Your task to perform on an android device: Search for seafood restaurants on Google Maps Image 0: 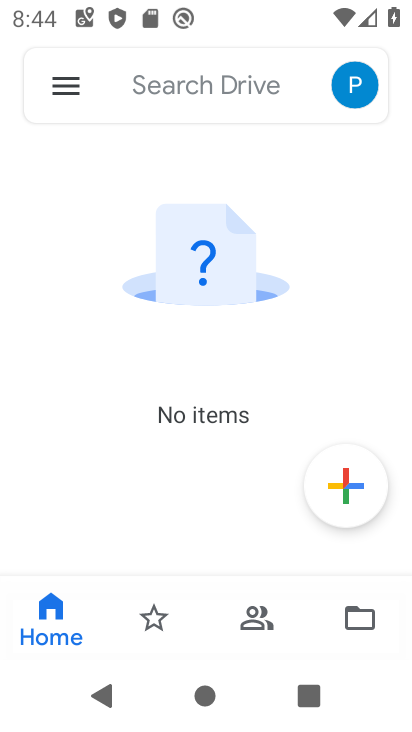
Step 0: press back button
Your task to perform on an android device: Search for seafood restaurants on Google Maps Image 1: 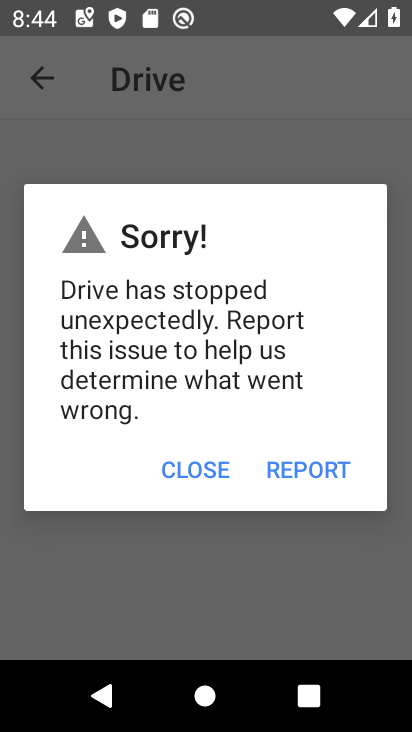
Step 1: press home button
Your task to perform on an android device: Search for seafood restaurants on Google Maps Image 2: 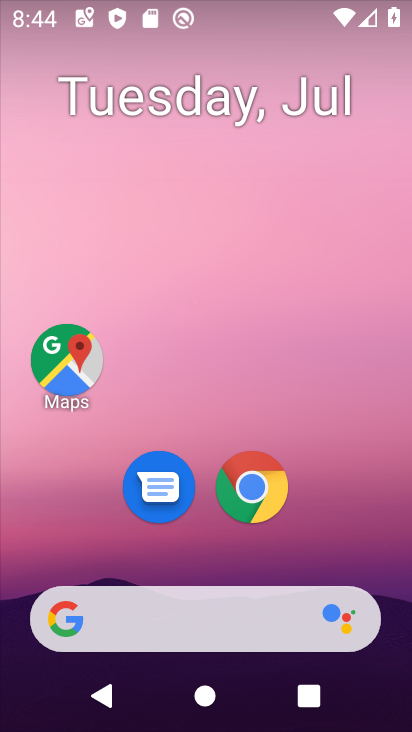
Step 2: click (66, 343)
Your task to perform on an android device: Search for seafood restaurants on Google Maps Image 3: 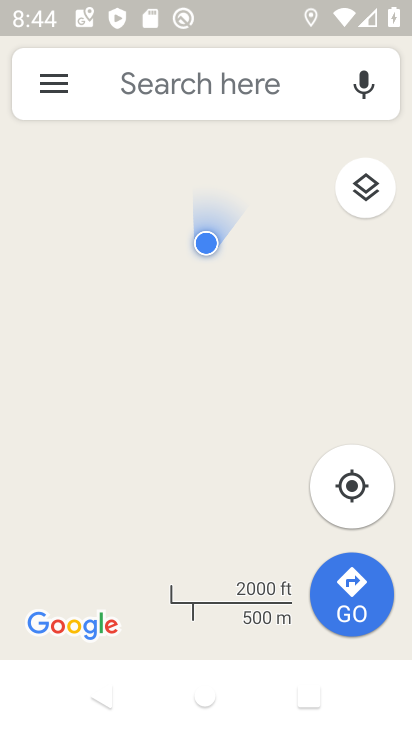
Step 3: click (192, 80)
Your task to perform on an android device: Search for seafood restaurants on Google Maps Image 4: 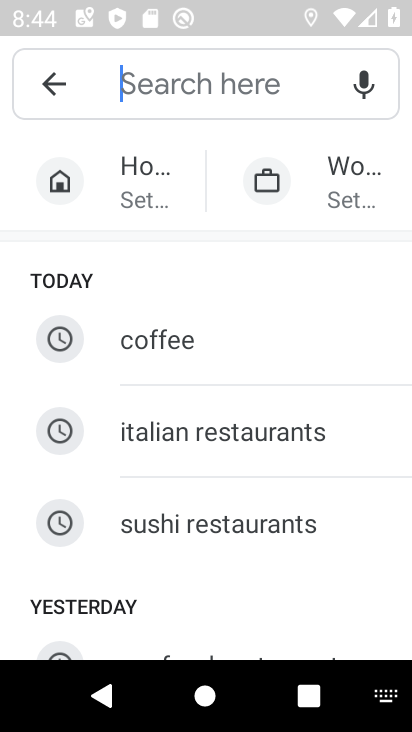
Step 4: type "seafood restaurants"
Your task to perform on an android device: Search for seafood restaurants on Google Maps Image 5: 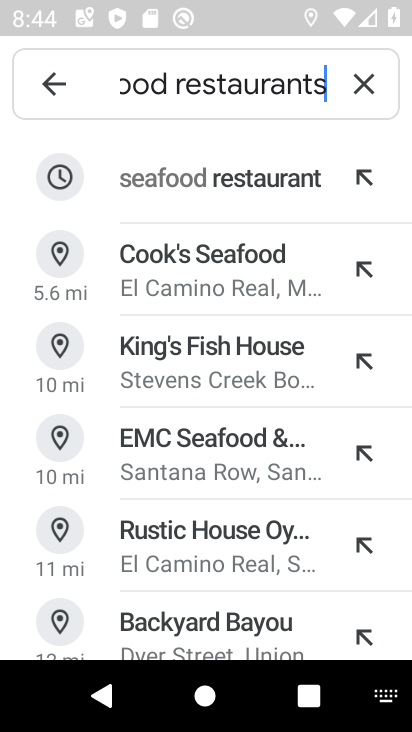
Step 5: click (201, 193)
Your task to perform on an android device: Search for seafood restaurants on Google Maps Image 6: 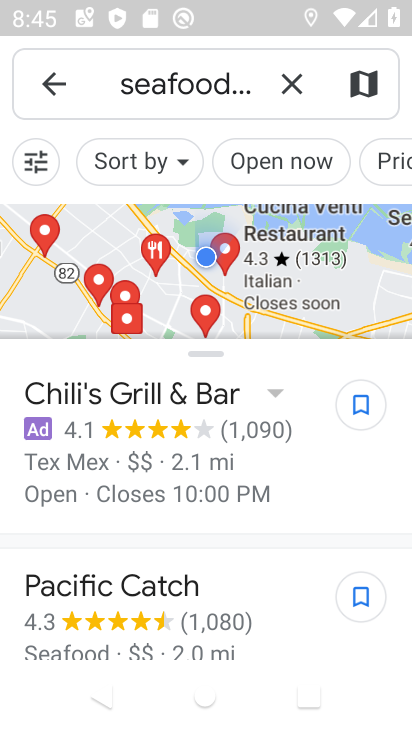
Step 6: task complete